Your task to perform on an android device: Show me productivity apps on the Play Store Image 0: 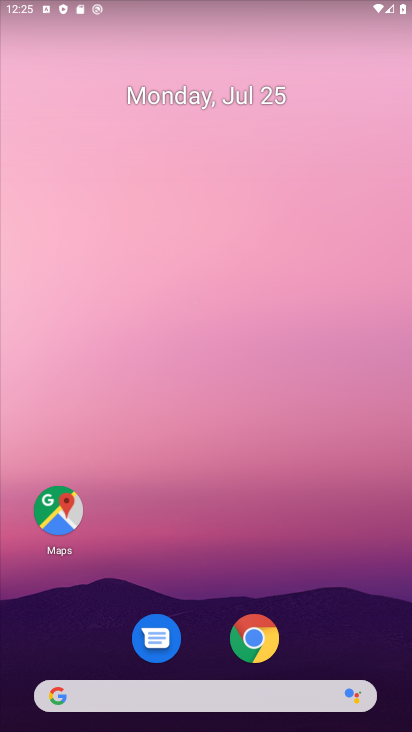
Step 0: drag from (196, 625) to (216, 24)
Your task to perform on an android device: Show me productivity apps on the Play Store Image 1: 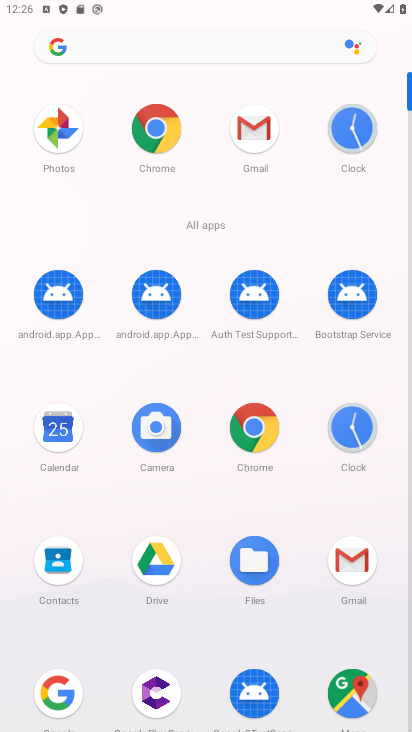
Step 1: drag from (194, 599) to (199, 113)
Your task to perform on an android device: Show me productivity apps on the Play Store Image 2: 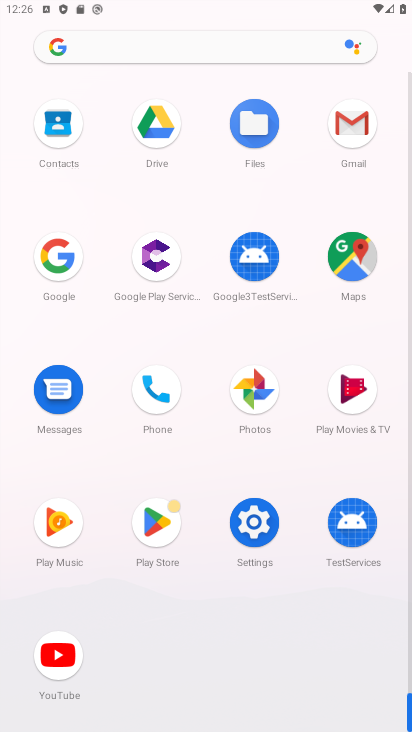
Step 2: drag from (184, 469) to (185, 165)
Your task to perform on an android device: Show me productivity apps on the Play Store Image 3: 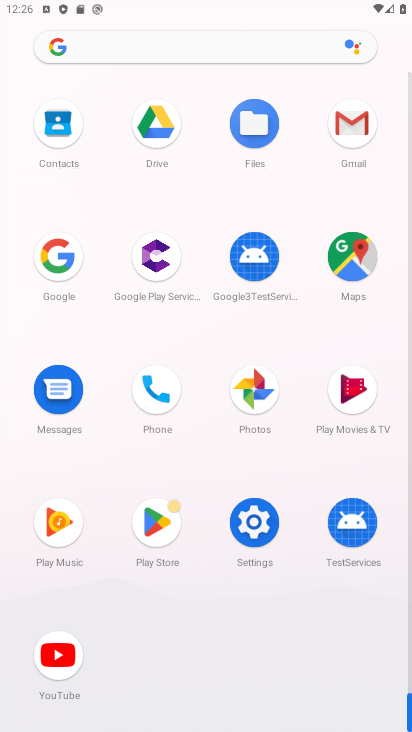
Step 3: click (178, 523)
Your task to perform on an android device: Show me productivity apps on the Play Store Image 4: 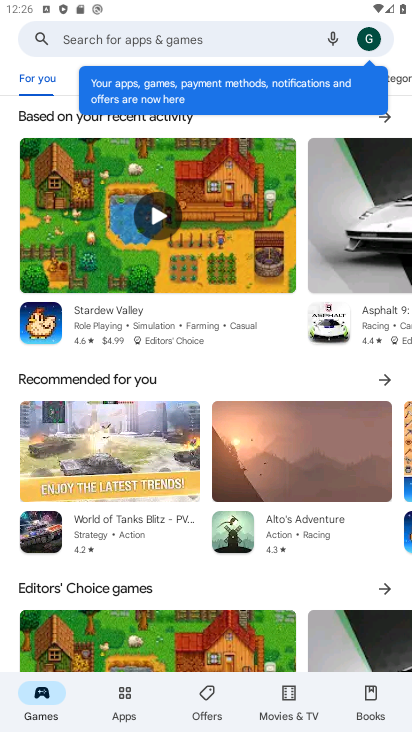
Step 4: click (128, 708)
Your task to perform on an android device: Show me productivity apps on the Play Store Image 5: 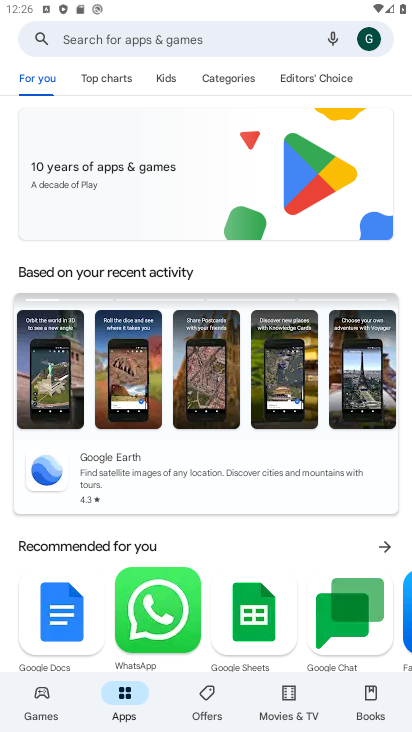
Step 5: click (238, 66)
Your task to perform on an android device: Show me productivity apps on the Play Store Image 6: 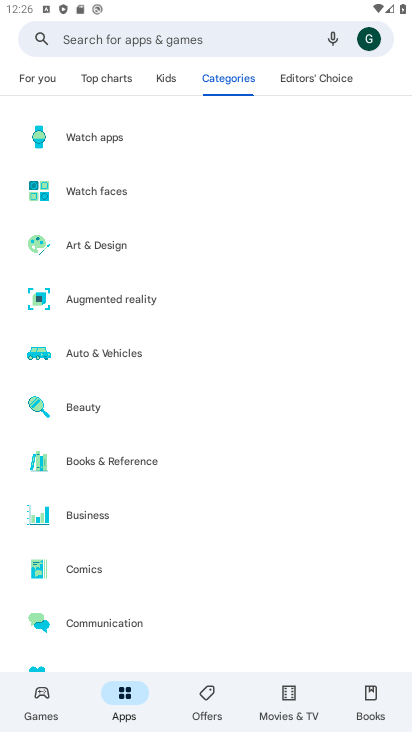
Step 6: drag from (147, 641) to (266, 39)
Your task to perform on an android device: Show me productivity apps on the Play Store Image 7: 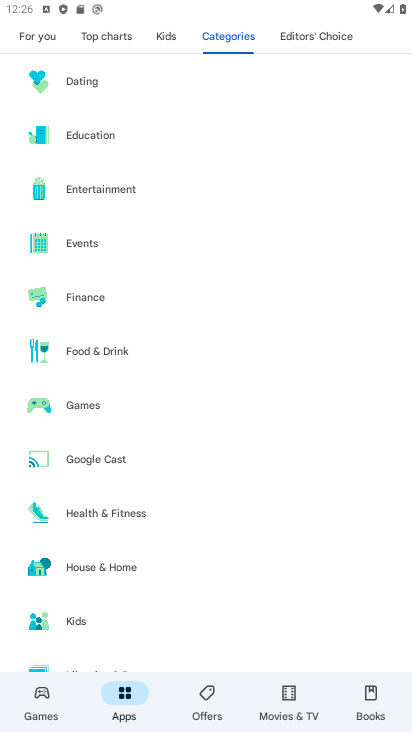
Step 7: drag from (93, 630) to (171, 83)
Your task to perform on an android device: Show me productivity apps on the Play Store Image 8: 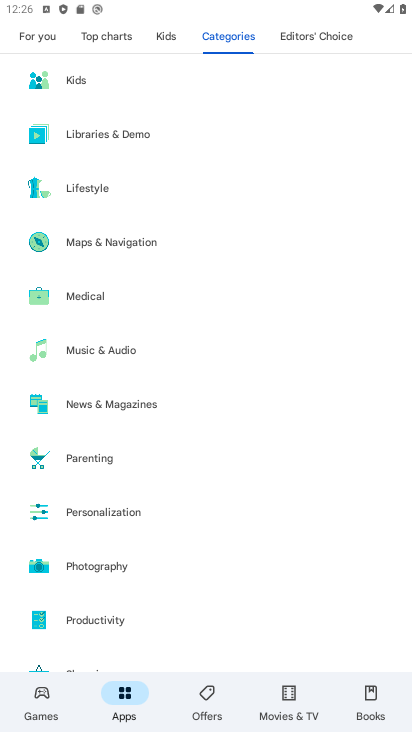
Step 8: click (112, 605)
Your task to perform on an android device: Show me productivity apps on the Play Store Image 9: 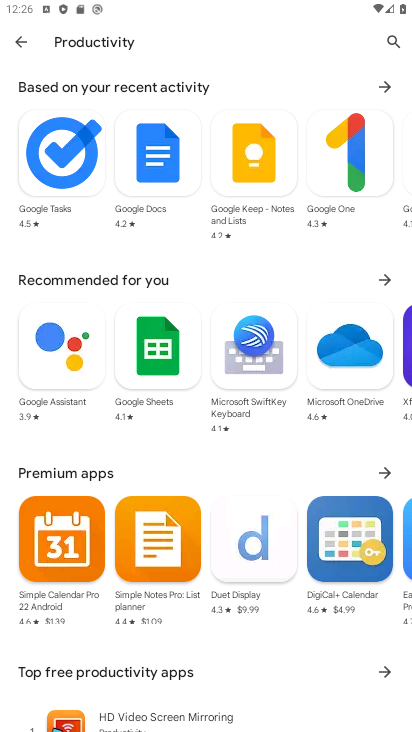
Step 9: task complete